Your task to perform on an android device: turn pop-ups on in chrome Image 0: 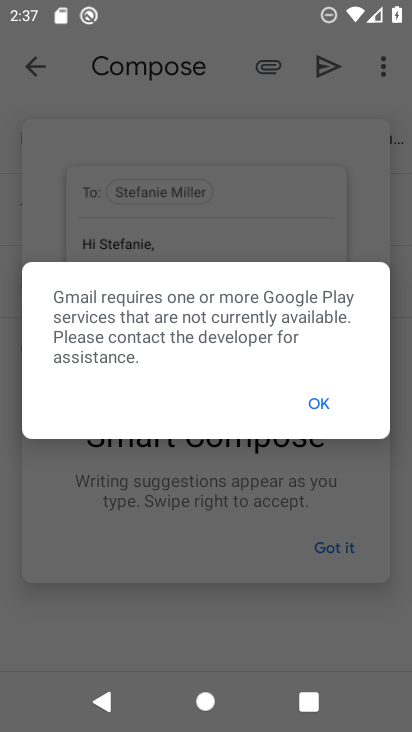
Step 0: press home button
Your task to perform on an android device: turn pop-ups on in chrome Image 1: 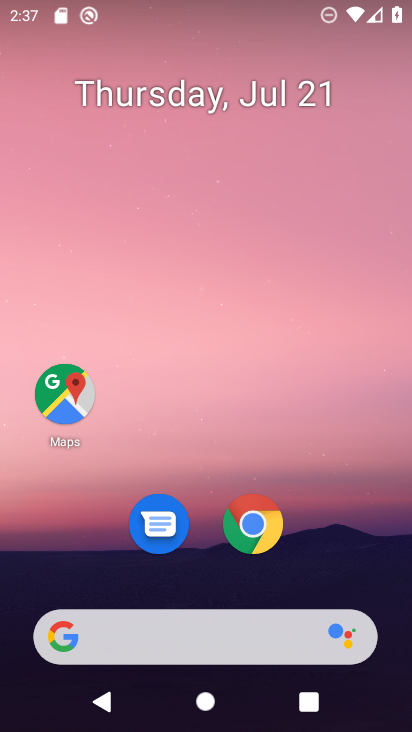
Step 1: click (250, 530)
Your task to perform on an android device: turn pop-ups on in chrome Image 2: 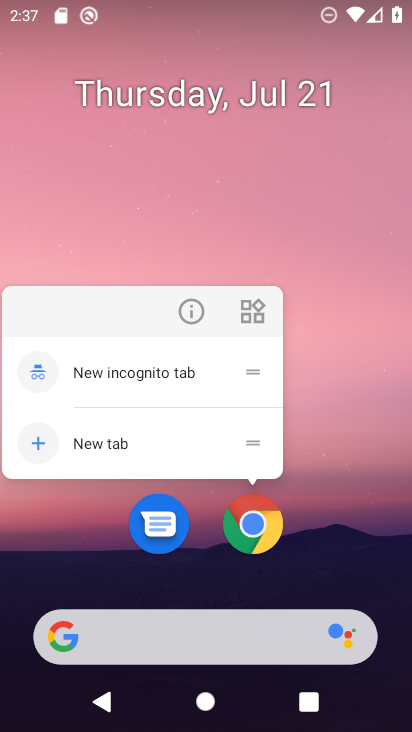
Step 2: click (255, 524)
Your task to perform on an android device: turn pop-ups on in chrome Image 3: 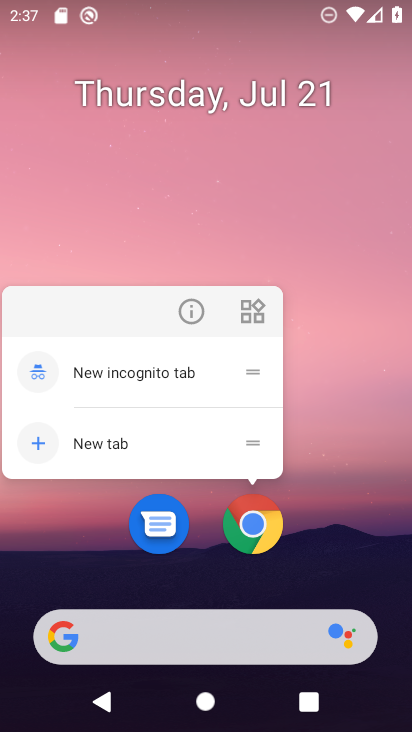
Step 3: click (260, 532)
Your task to perform on an android device: turn pop-ups on in chrome Image 4: 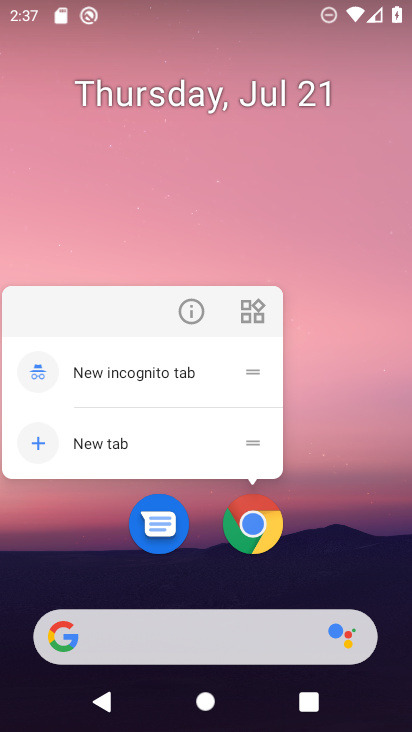
Step 4: click (250, 534)
Your task to perform on an android device: turn pop-ups on in chrome Image 5: 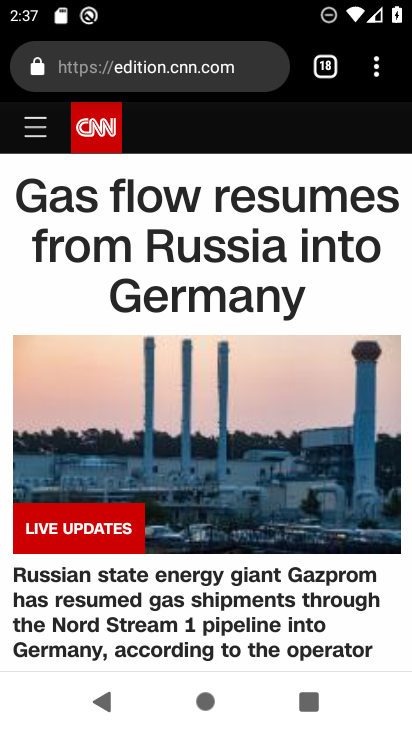
Step 5: drag from (374, 69) to (217, 528)
Your task to perform on an android device: turn pop-ups on in chrome Image 6: 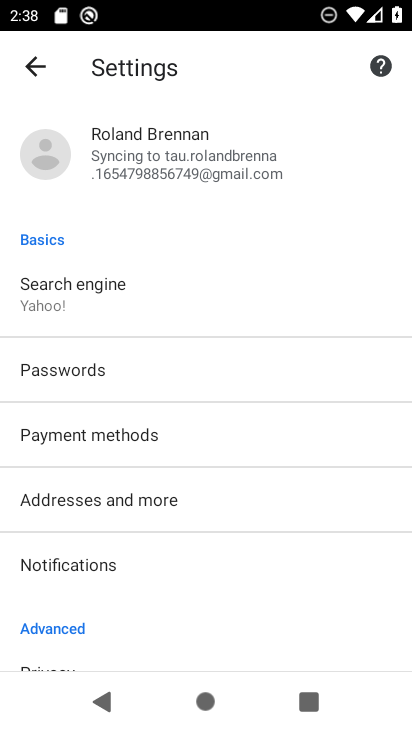
Step 6: drag from (208, 557) to (286, 198)
Your task to perform on an android device: turn pop-ups on in chrome Image 7: 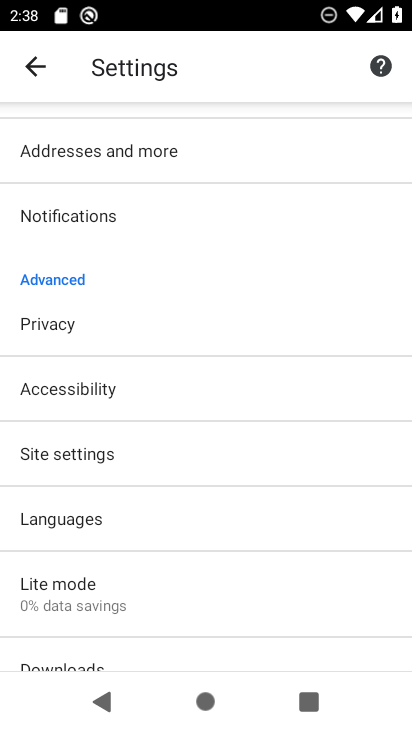
Step 7: click (76, 461)
Your task to perform on an android device: turn pop-ups on in chrome Image 8: 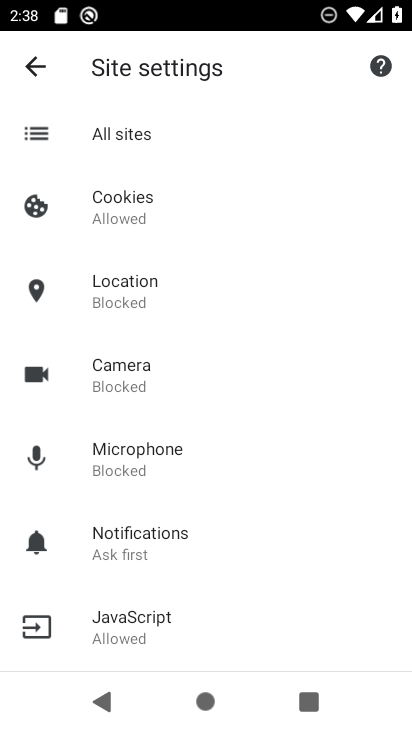
Step 8: drag from (172, 585) to (244, 94)
Your task to perform on an android device: turn pop-ups on in chrome Image 9: 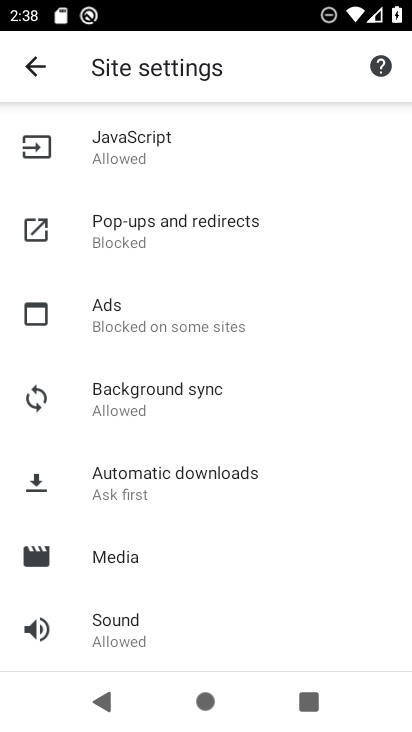
Step 9: click (145, 224)
Your task to perform on an android device: turn pop-ups on in chrome Image 10: 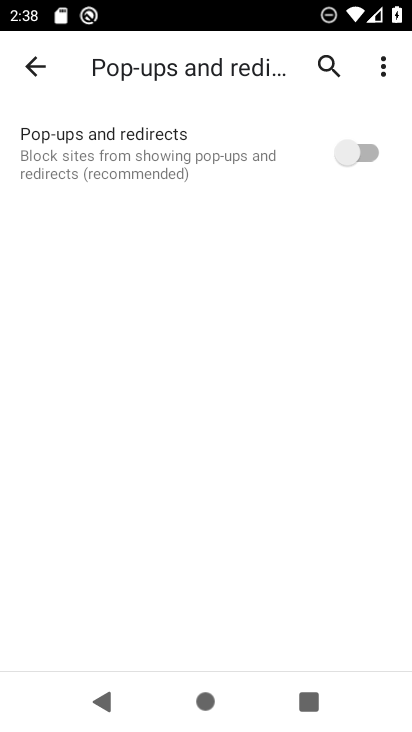
Step 10: click (368, 150)
Your task to perform on an android device: turn pop-ups on in chrome Image 11: 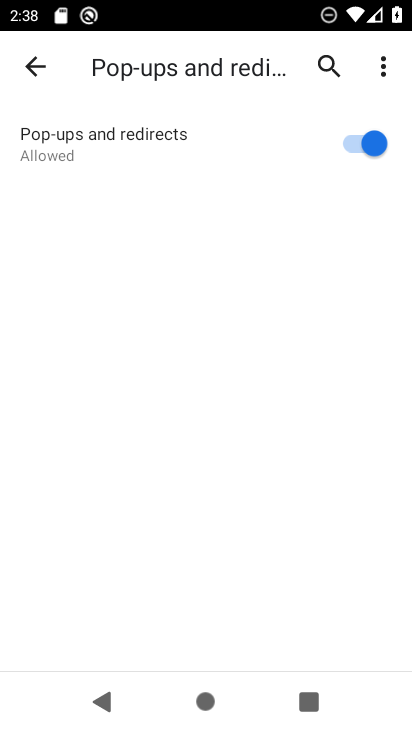
Step 11: task complete